Your task to perform on an android device: Open the phone app and click the voicemail tab. Image 0: 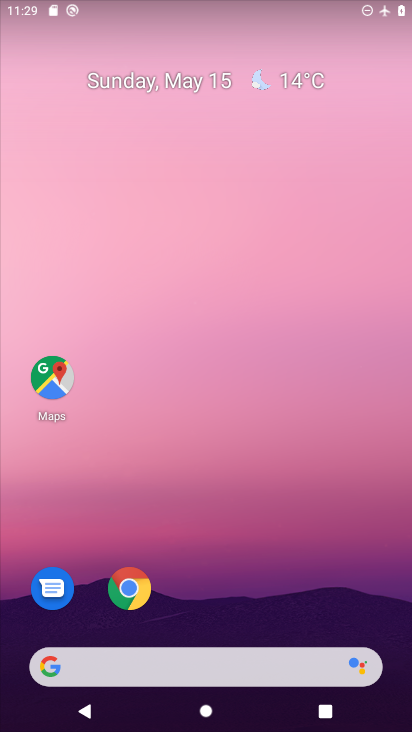
Step 0: drag from (226, 548) to (204, 5)
Your task to perform on an android device: Open the phone app and click the voicemail tab. Image 1: 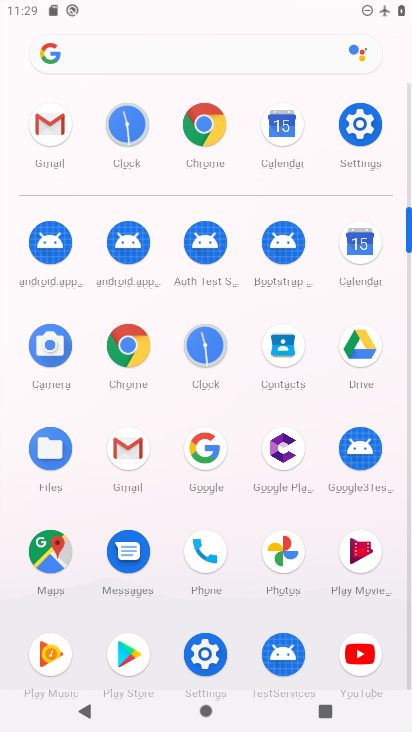
Step 1: click (205, 565)
Your task to perform on an android device: Open the phone app and click the voicemail tab. Image 2: 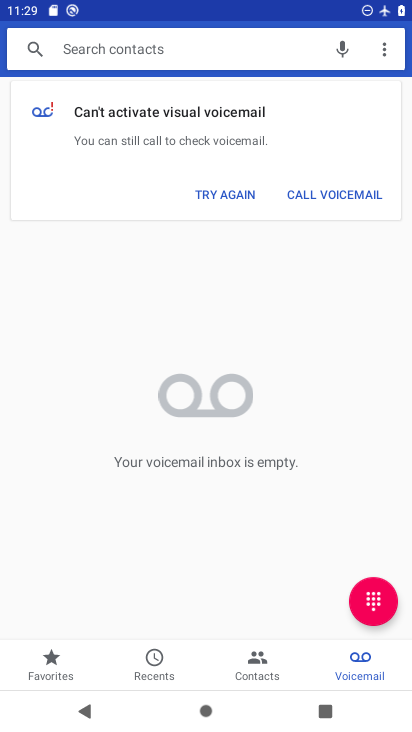
Step 2: task complete